Your task to perform on an android device: Open Reddit.com Image 0: 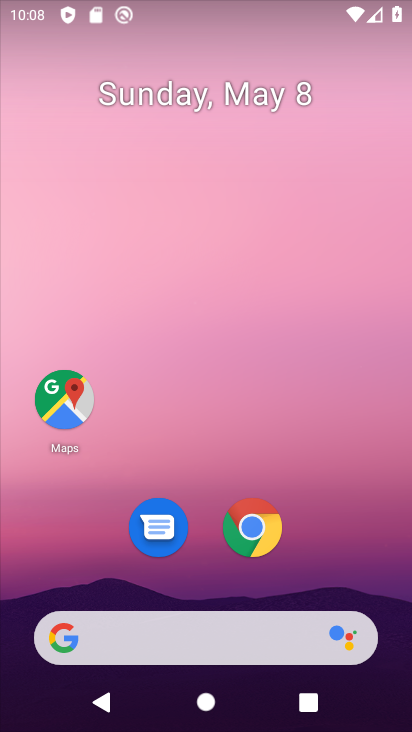
Step 0: click (276, 541)
Your task to perform on an android device: Open Reddit.com Image 1: 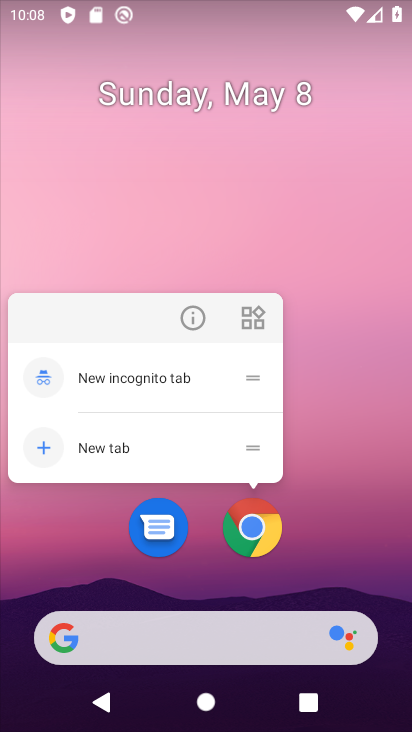
Step 1: click (243, 550)
Your task to perform on an android device: Open Reddit.com Image 2: 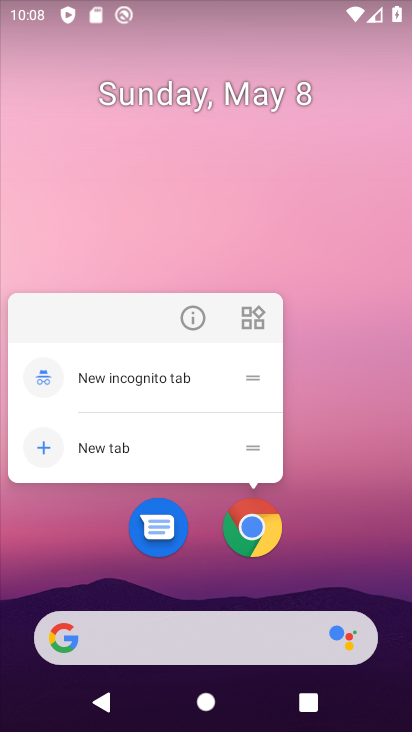
Step 2: click (266, 549)
Your task to perform on an android device: Open Reddit.com Image 3: 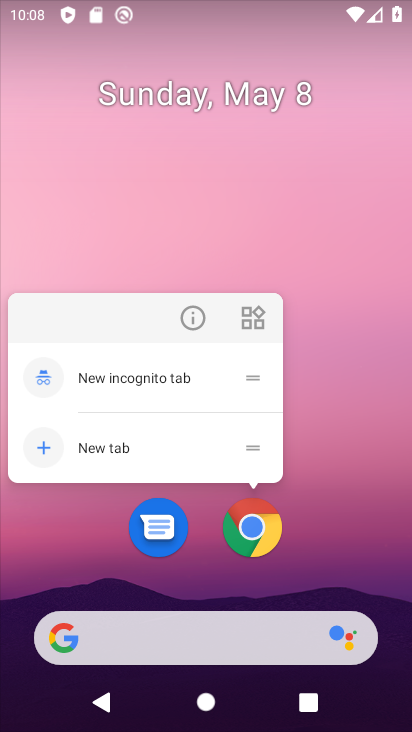
Step 3: click (262, 535)
Your task to perform on an android device: Open Reddit.com Image 4: 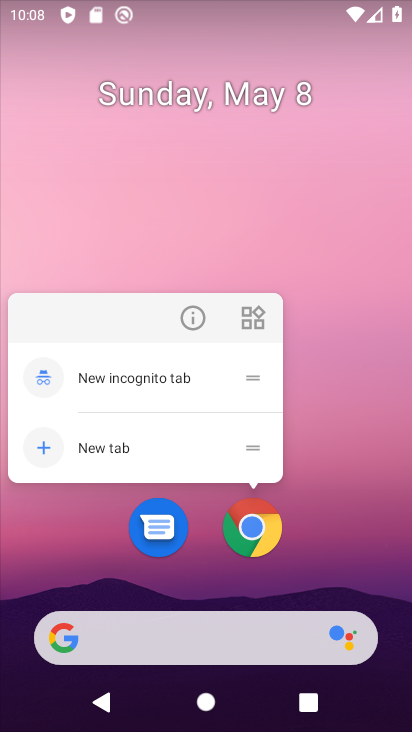
Step 4: click (258, 544)
Your task to perform on an android device: Open Reddit.com Image 5: 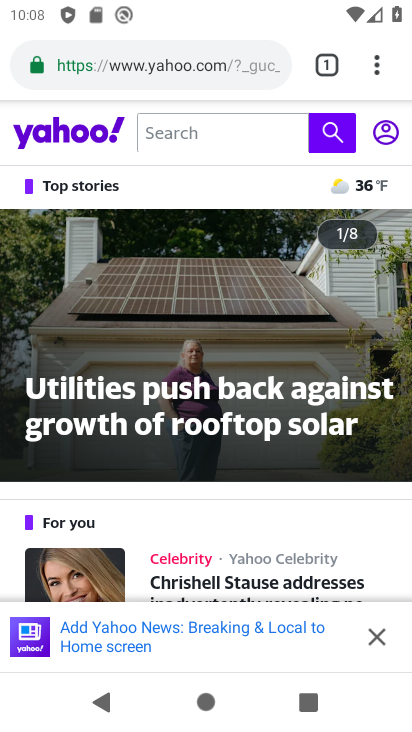
Step 5: click (167, 72)
Your task to perform on an android device: Open Reddit.com Image 6: 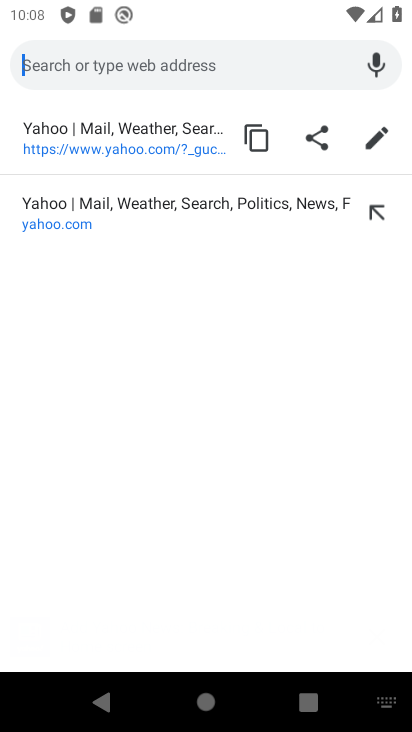
Step 6: type "reddit.com"
Your task to perform on an android device: Open Reddit.com Image 7: 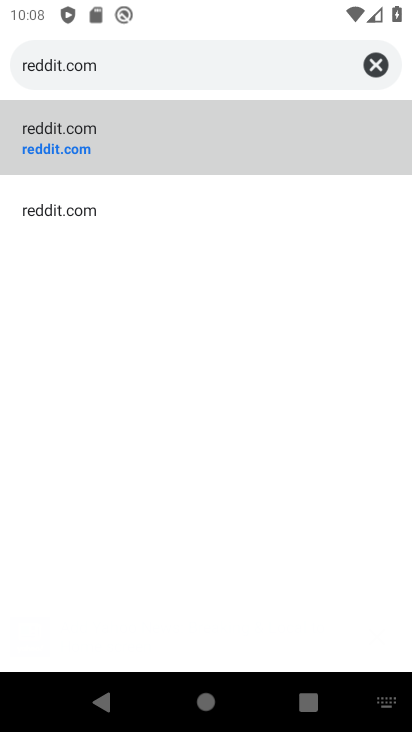
Step 7: click (103, 149)
Your task to perform on an android device: Open Reddit.com Image 8: 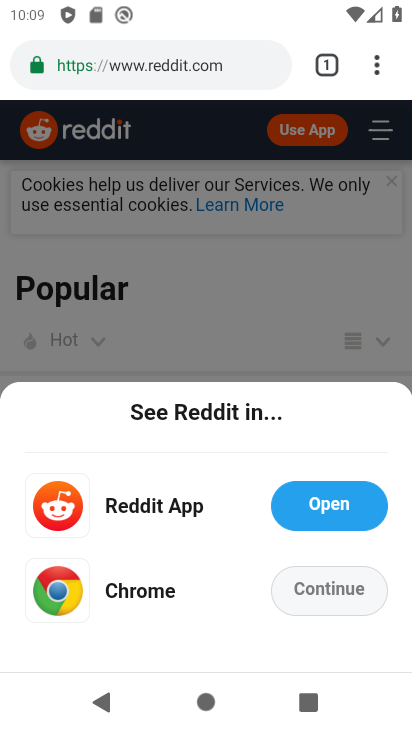
Step 8: task complete